Your task to perform on an android device: Open Reddit.com Image 0: 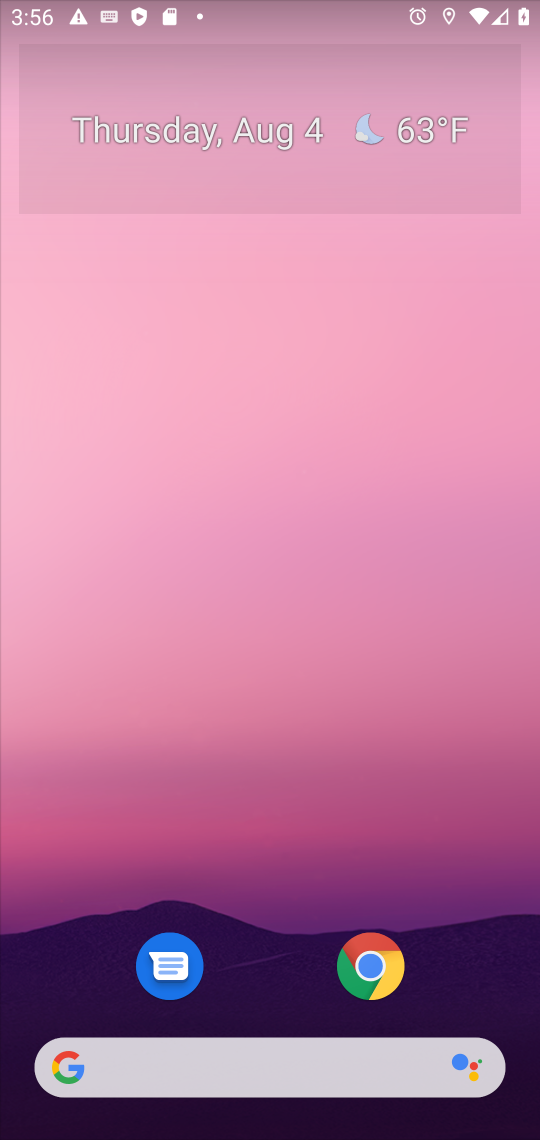
Step 0: press home button
Your task to perform on an android device: Open Reddit.com Image 1: 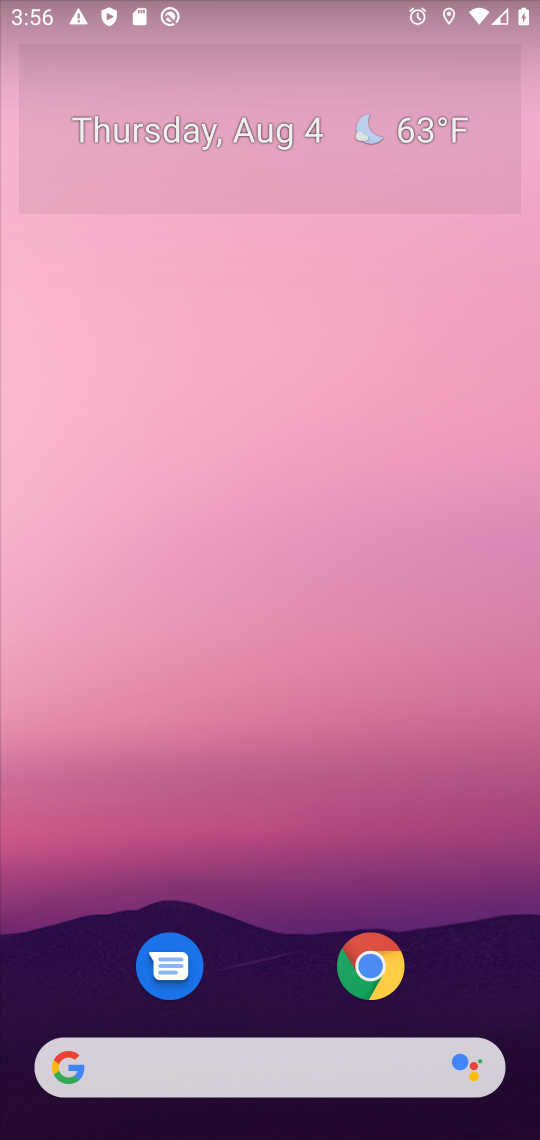
Step 1: click (64, 1067)
Your task to perform on an android device: Open Reddit.com Image 2: 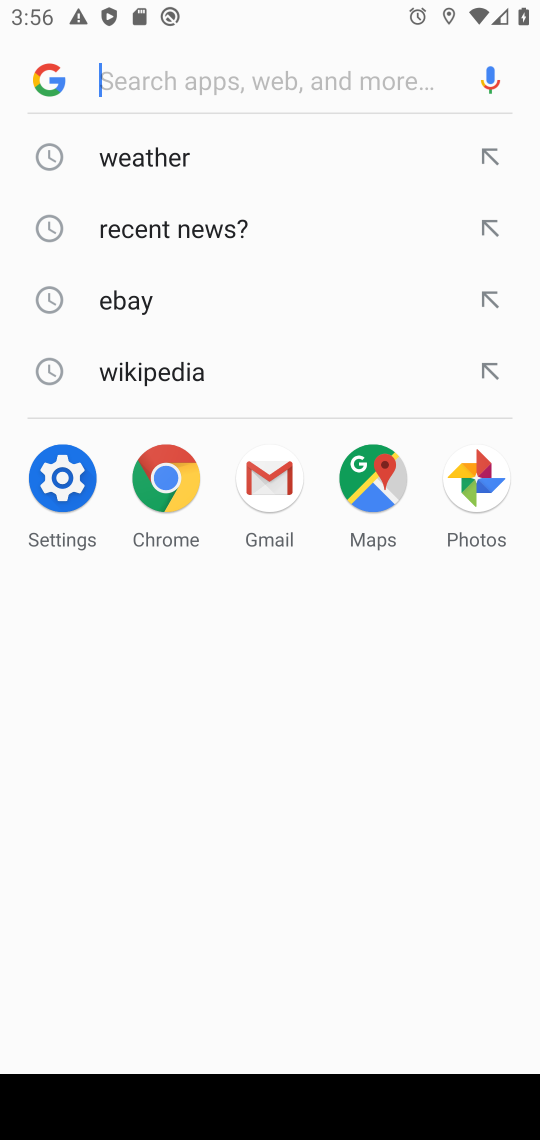
Step 2: type "Reddit.com"
Your task to perform on an android device: Open Reddit.com Image 3: 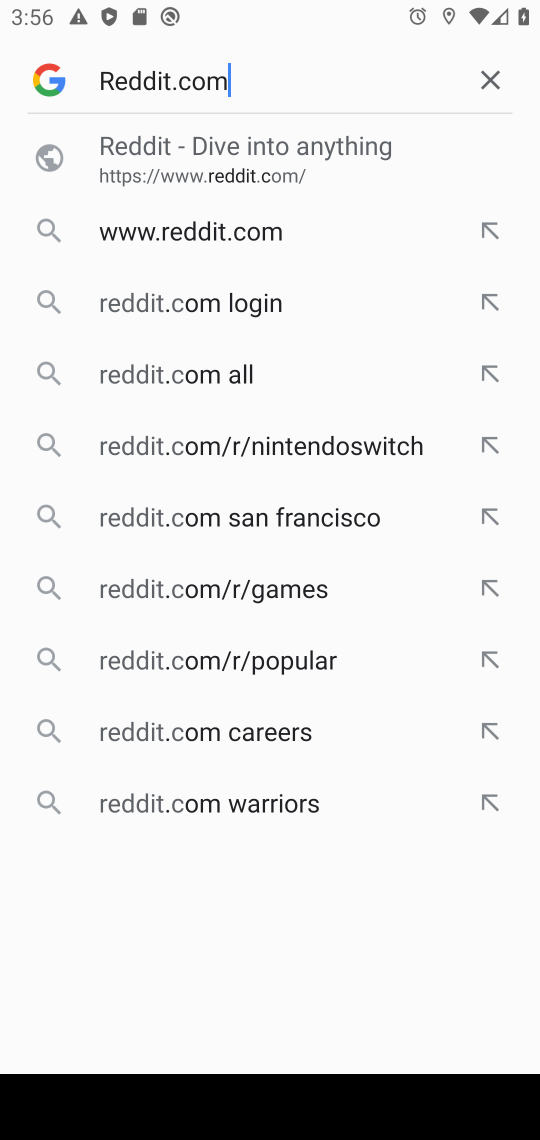
Step 3: press enter
Your task to perform on an android device: Open Reddit.com Image 4: 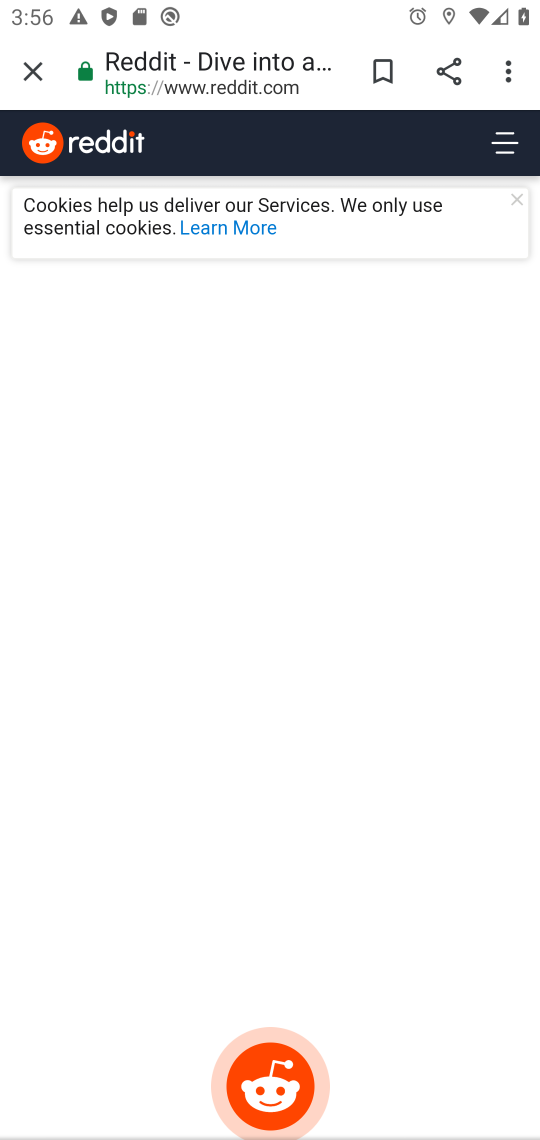
Step 4: task complete